Your task to perform on an android device: change text size in settings app Image 0: 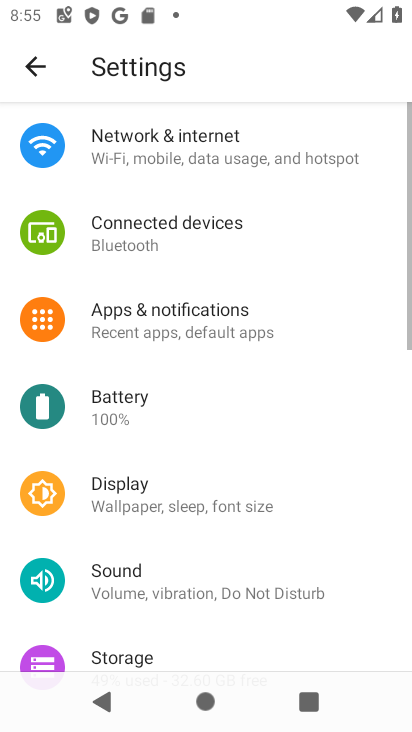
Step 0: press home button
Your task to perform on an android device: change text size in settings app Image 1: 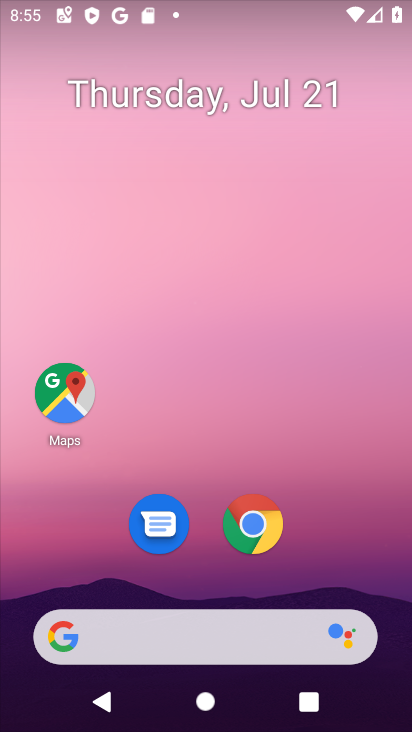
Step 1: drag from (225, 636) to (349, 80)
Your task to perform on an android device: change text size in settings app Image 2: 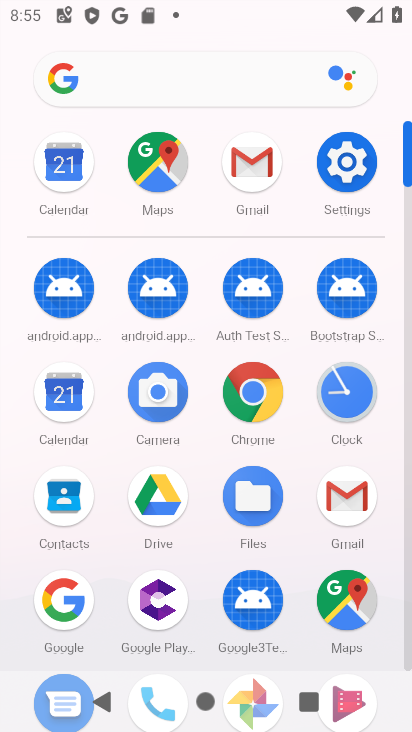
Step 2: click (334, 159)
Your task to perform on an android device: change text size in settings app Image 3: 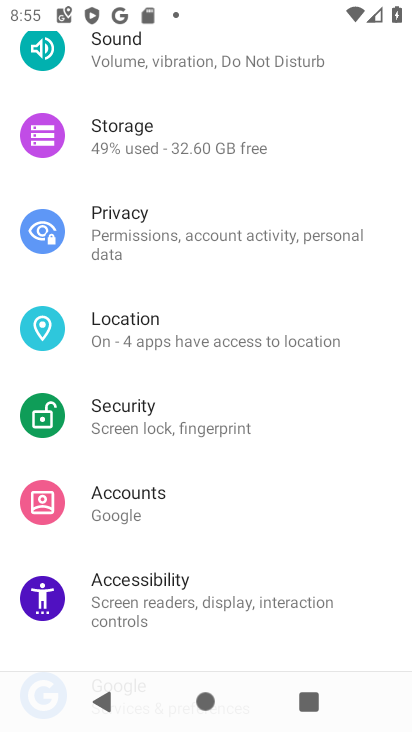
Step 3: drag from (344, 112) to (293, 610)
Your task to perform on an android device: change text size in settings app Image 4: 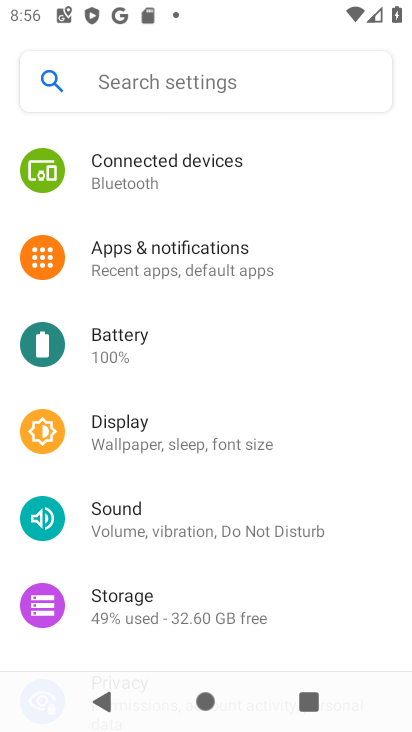
Step 4: drag from (261, 388) to (306, 234)
Your task to perform on an android device: change text size in settings app Image 5: 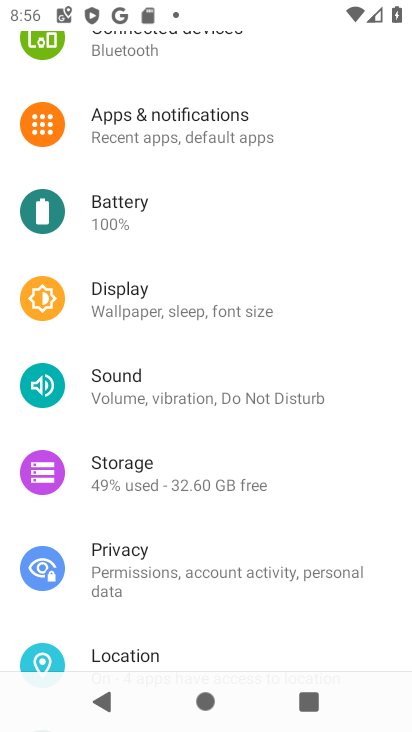
Step 5: click (173, 308)
Your task to perform on an android device: change text size in settings app Image 6: 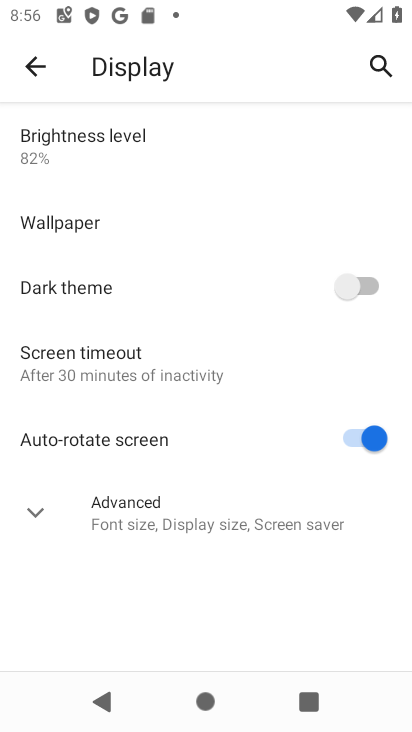
Step 6: click (94, 521)
Your task to perform on an android device: change text size in settings app Image 7: 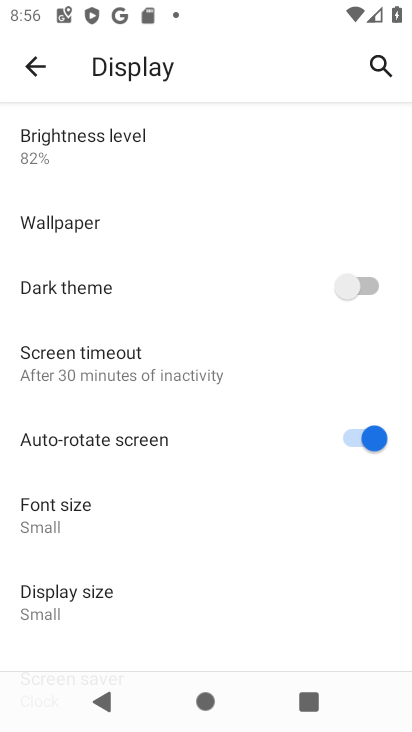
Step 7: click (42, 516)
Your task to perform on an android device: change text size in settings app Image 8: 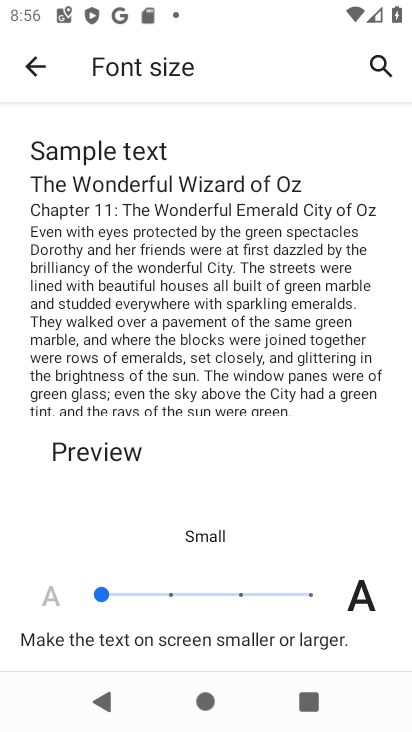
Step 8: click (170, 590)
Your task to perform on an android device: change text size in settings app Image 9: 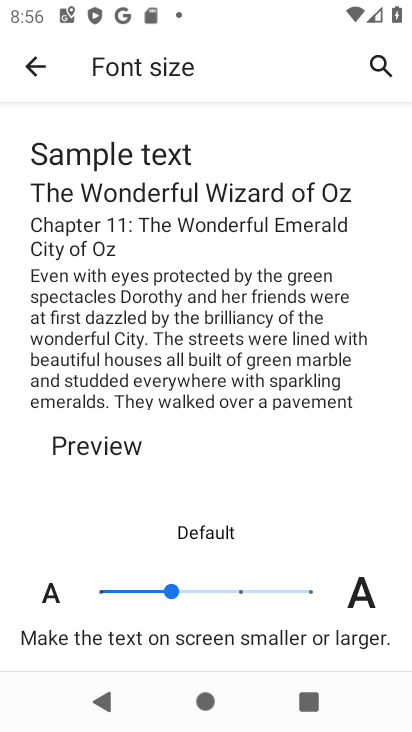
Step 9: task complete